Your task to perform on an android device: Turn off the flashlight Image 0: 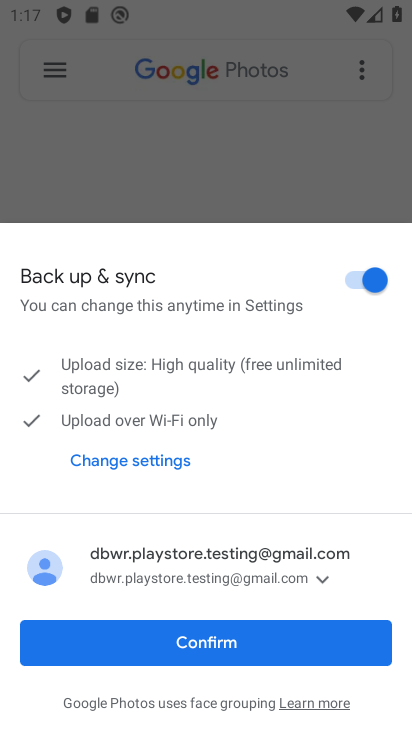
Step 0: click (159, 147)
Your task to perform on an android device: Turn off the flashlight Image 1: 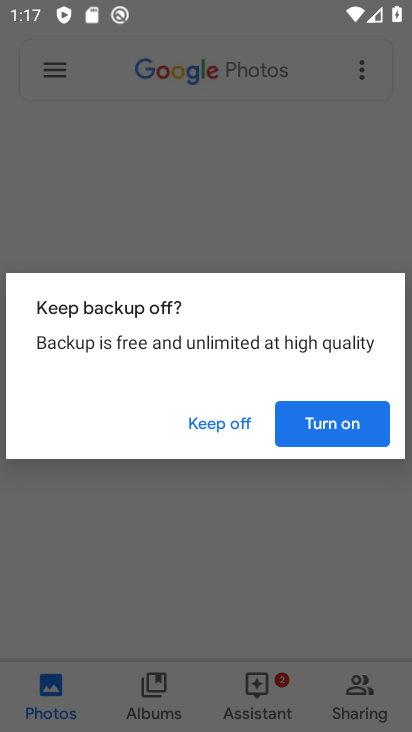
Step 1: task complete